Your task to perform on an android device: Do I have any events this weekend? Image 0: 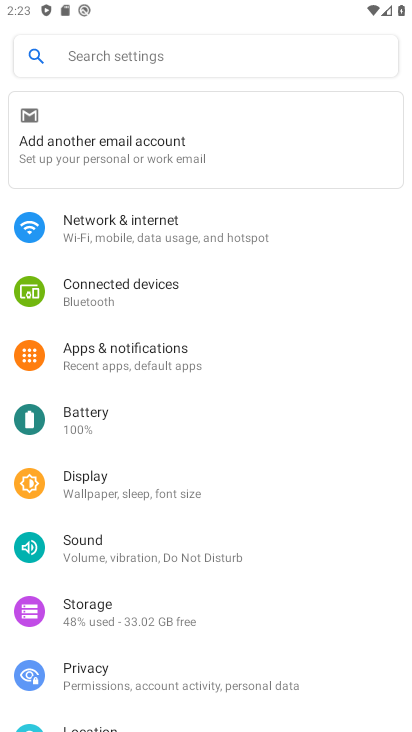
Step 0: press home button
Your task to perform on an android device: Do I have any events this weekend? Image 1: 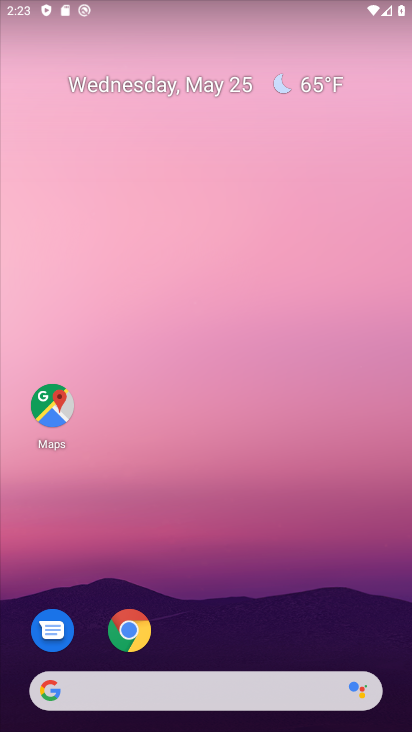
Step 1: drag from (209, 651) to (188, 84)
Your task to perform on an android device: Do I have any events this weekend? Image 2: 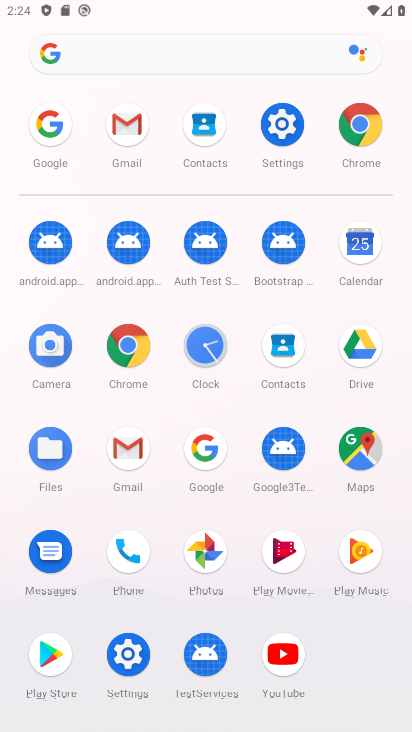
Step 2: click (357, 240)
Your task to perform on an android device: Do I have any events this weekend? Image 3: 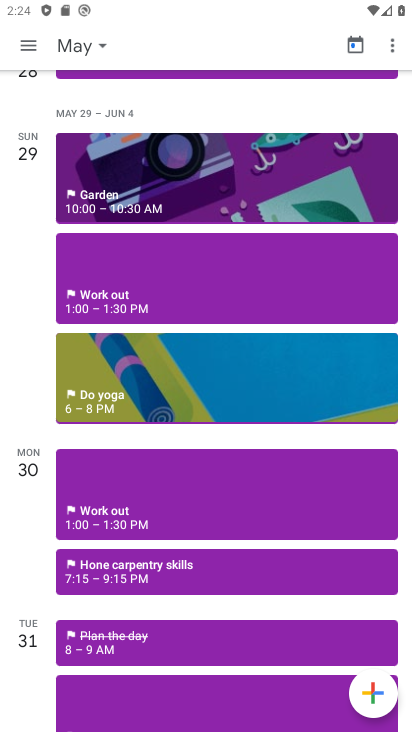
Step 3: click (28, 44)
Your task to perform on an android device: Do I have any events this weekend? Image 4: 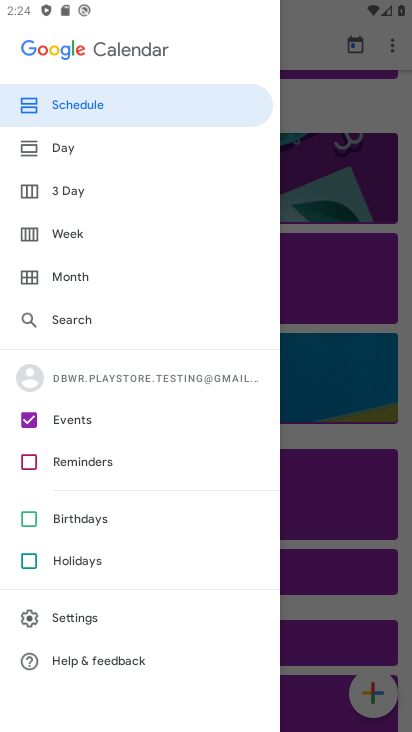
Step 4: click (42, 223)
Your task to perform on an android device: Do I have any events this weekend? Image 5: 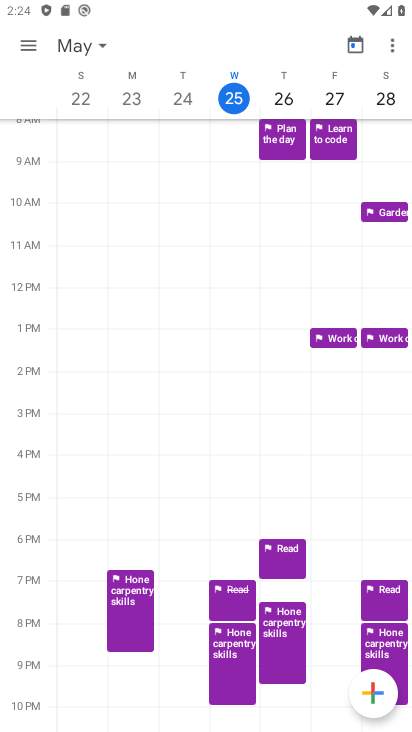
Step 5: click (228, 88)
Your task to perform on an android device: Do I have any events this weekend? Image 6: 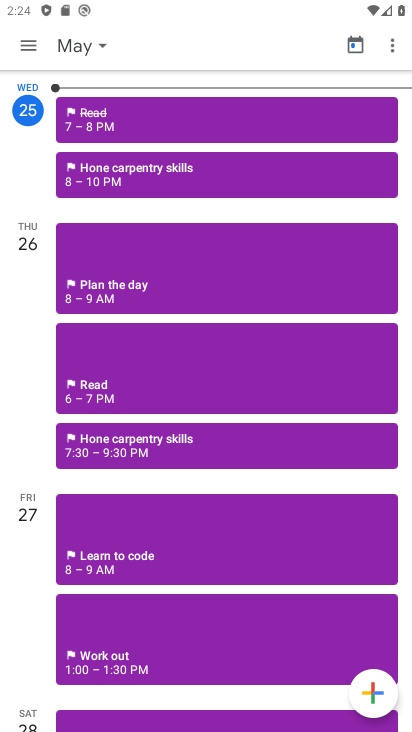
Step 6: task complete